Your task to perform on an android device: set the stopwatch Image 0: 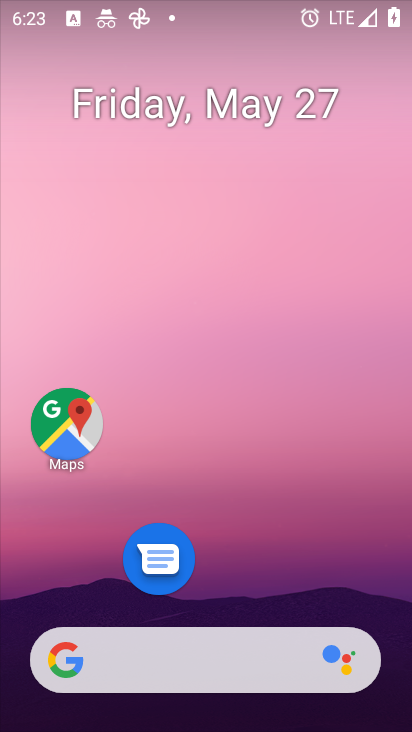
Step 0: drag from (194, 580) to (315, 10)
Your task to perform on an android device: set the stopwatch Image 1: 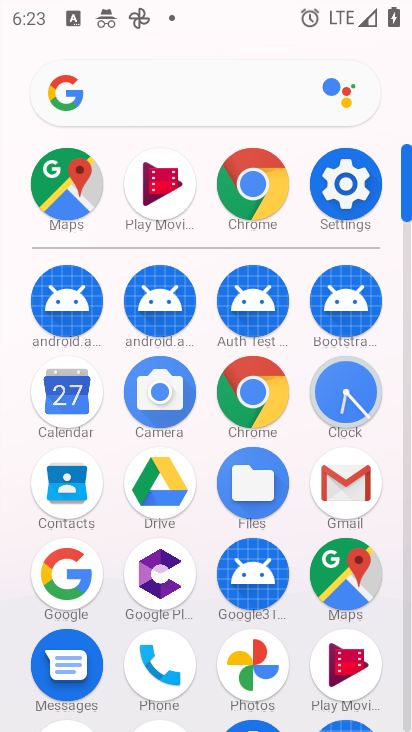
Step 1: click (332, 389)
Your task to perform on an android device: set the stopwatch Image 2: 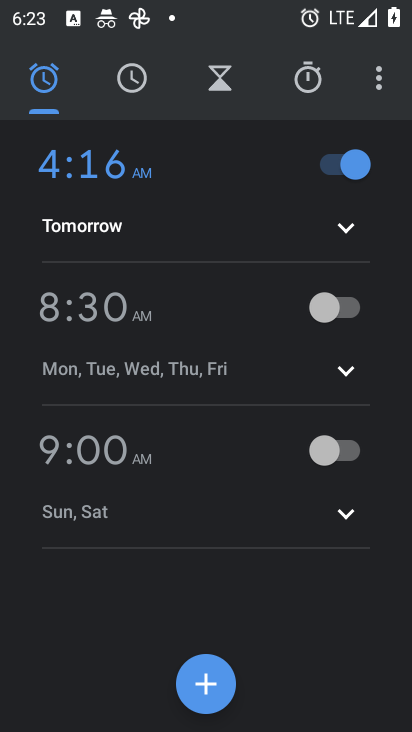
Step 2: task complete